Your task to perform on an android device: install app "Truecaller" Image 0: 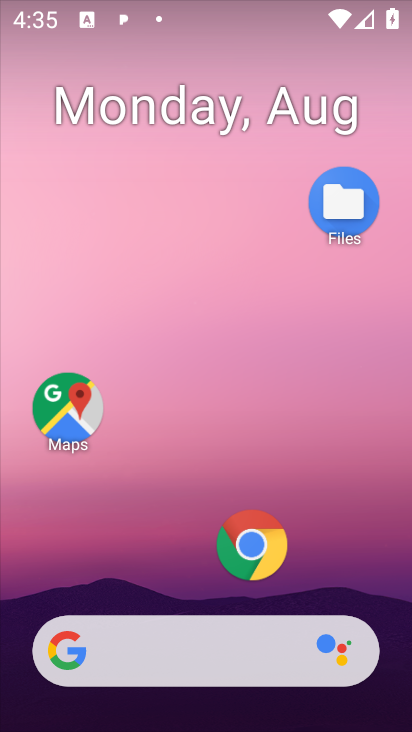
Step 0: drag from (159, 560) to (250, 14)
Your task to perform on an android device: install app "Truecaller" Image 1: 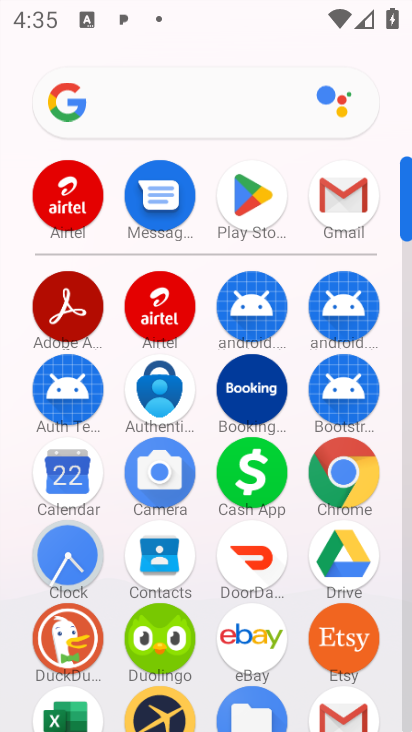
Step 1: drag from (246, 630) to (278, 261)
Your task to perform on an android device: install app "Truecaller" Image 2: 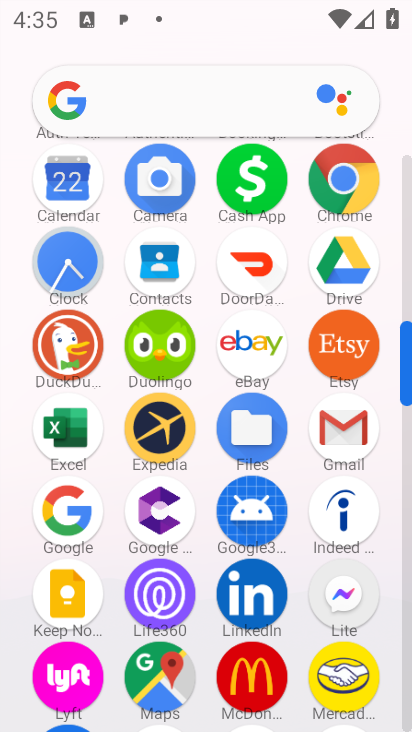
Step 2: drag from (234, 636) to (305, 102)
Your task to perform on an android device: install app "Truecaller" Image 3: 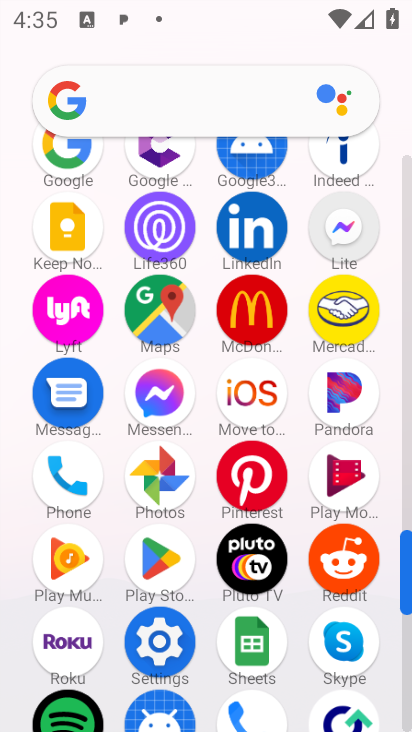
Step 3: drag from (207, 631) to (280, 213)
Your task to perform on an android device: install app "Truecaller" Image 4: 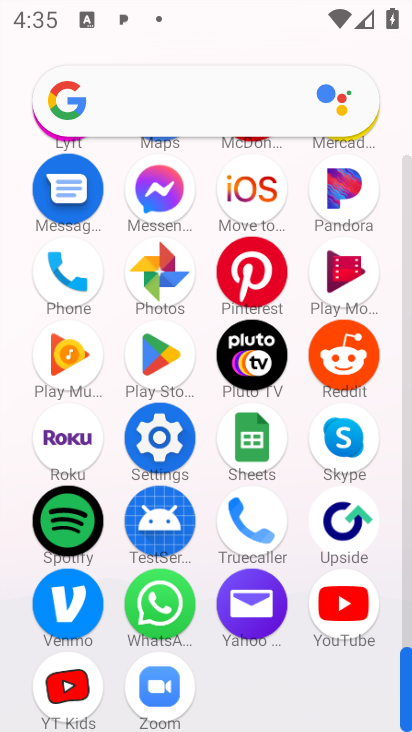
Step 4: click (256, 525)
Your task to perform on an android device: install app "Truecaller" Image 5: 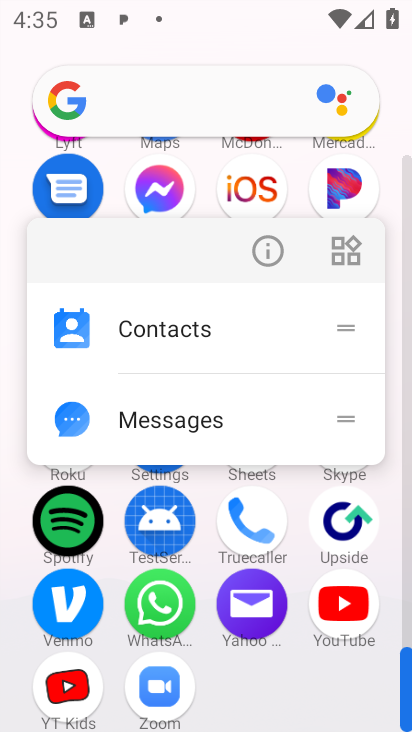
Step 5: task complete